Your task to perform on an android device: Open Google Image 0: 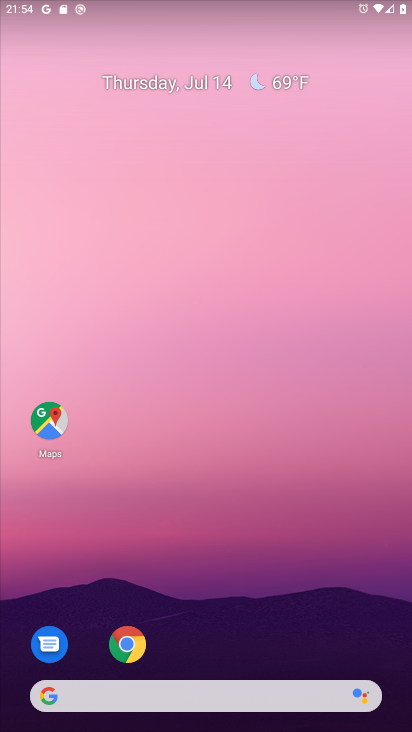
Step 0: click (155, 690)
Your task to perform on an android device: Open Google Image 1: 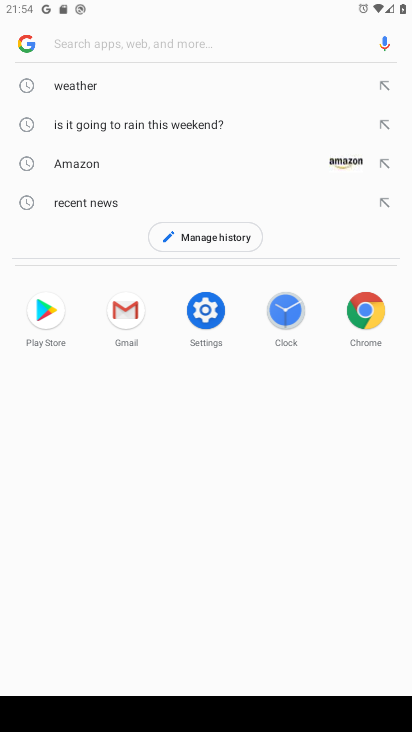
Step 1: click (31, 52)
Your task to perform on an android device: Open Google Image 2: 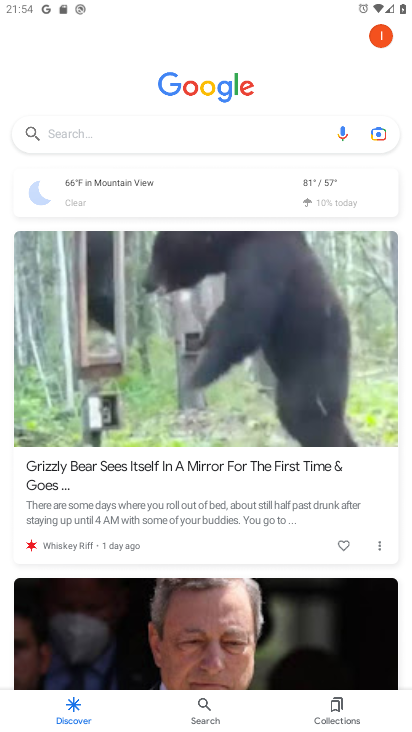
Step 2: task complete